Your task to perform on an android device: open wifi settings Image 0: 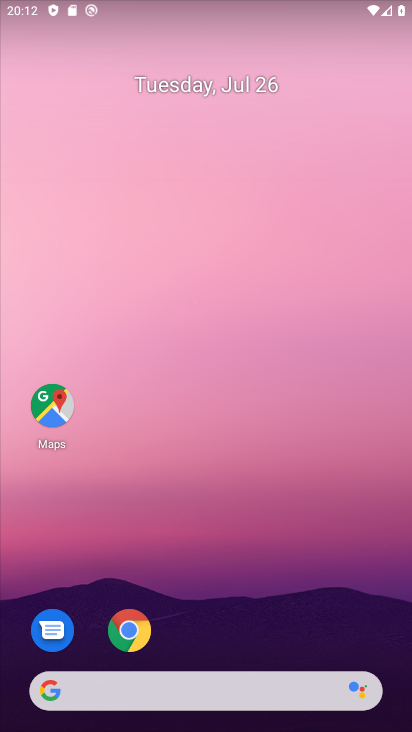
Step 0: press home button
Your task to perform on an android device: open wifi settings Image 1: 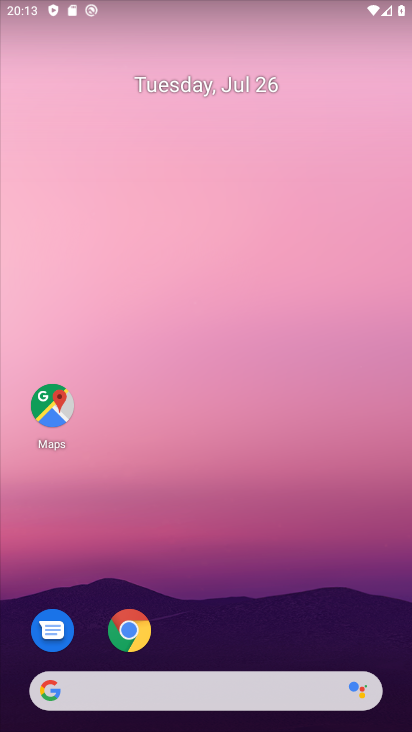
Step 1: drag from (319, 627) to (349, 114)
Your task to perform on an android device: open wifi settings Image 2: 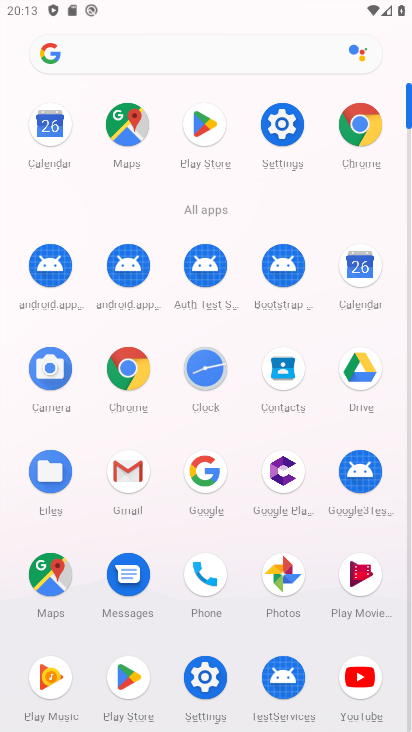
Step 2: click (275, 125)
Your task to perform on an android device: open wifi settings Image 3: 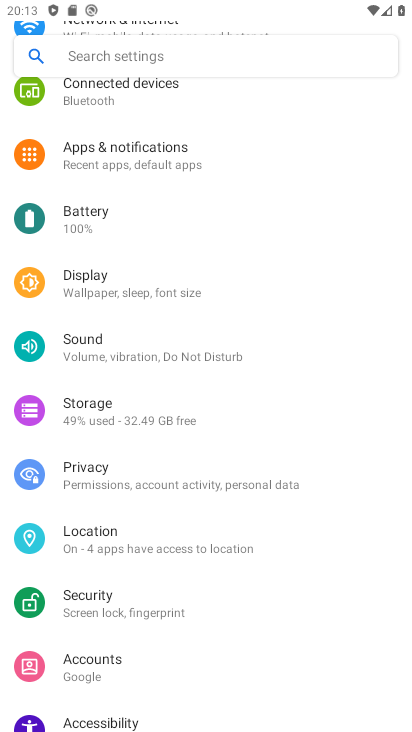
Step 3: drag from (301, 184) to (300, 277)
Your task to perform on an android device: open wifi settings Image 4: 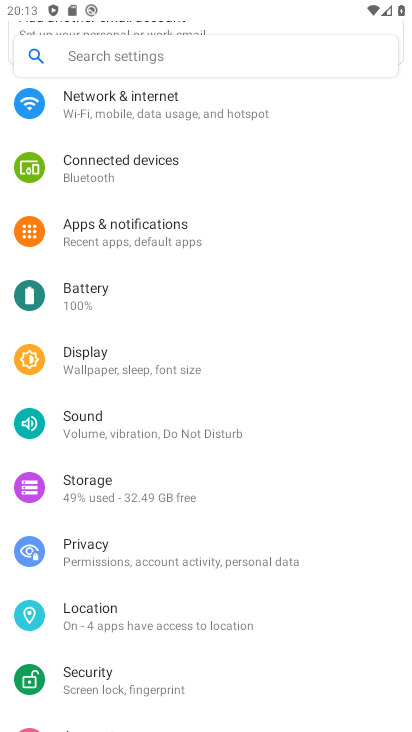
Step 4: drag from (298, 205) to (294, 305)
Your task to perform on an android device: open wifi settings Image 5: 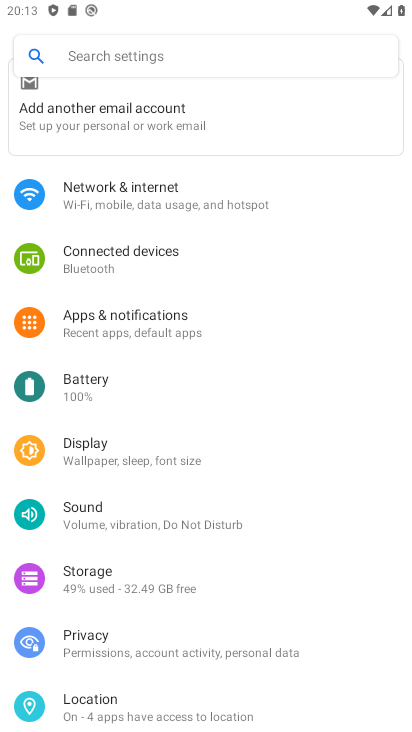
Step 5: click (262, 196)
Your task to perform on an android device: open wifi settings Image 6: 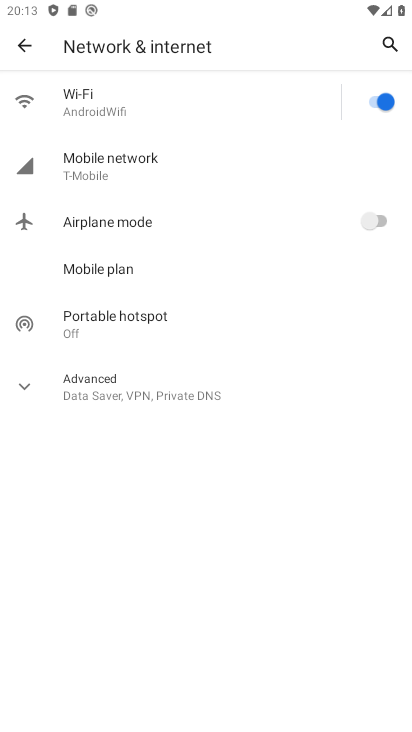
Step 6: click (160, 97)
Your task to perform on an android device: open wifi settings Image 7: 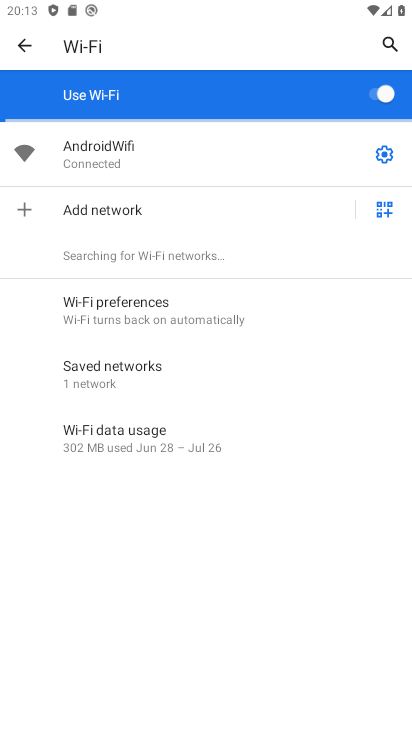
Step 7: task complete